Your task to perform on an android device: open the mobile data screen to see how much data has been used Image 0: 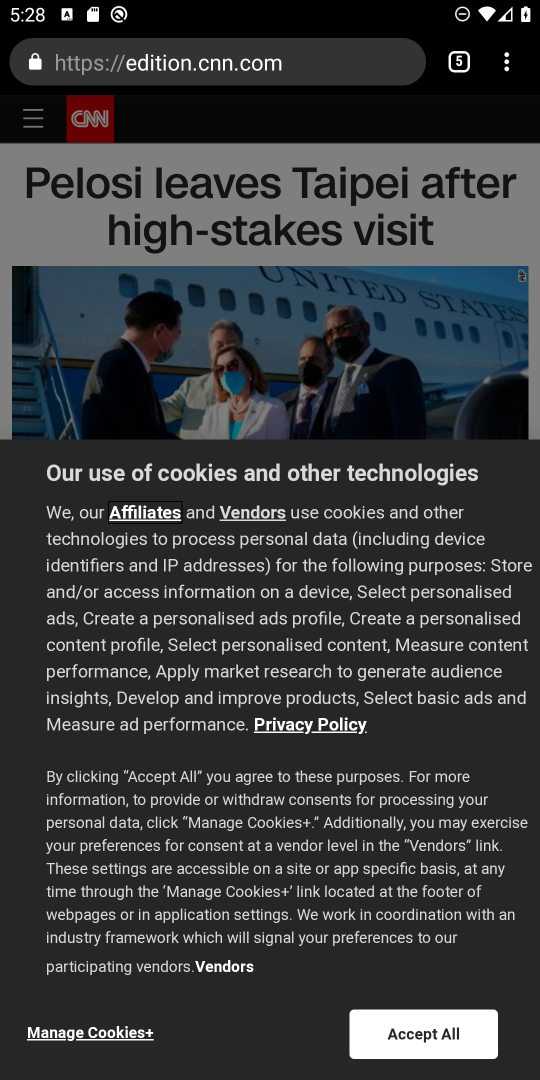
Step 0: press home button
Your task to perform on an android device: open the mobile data screen to see how much data has been used Image 1: 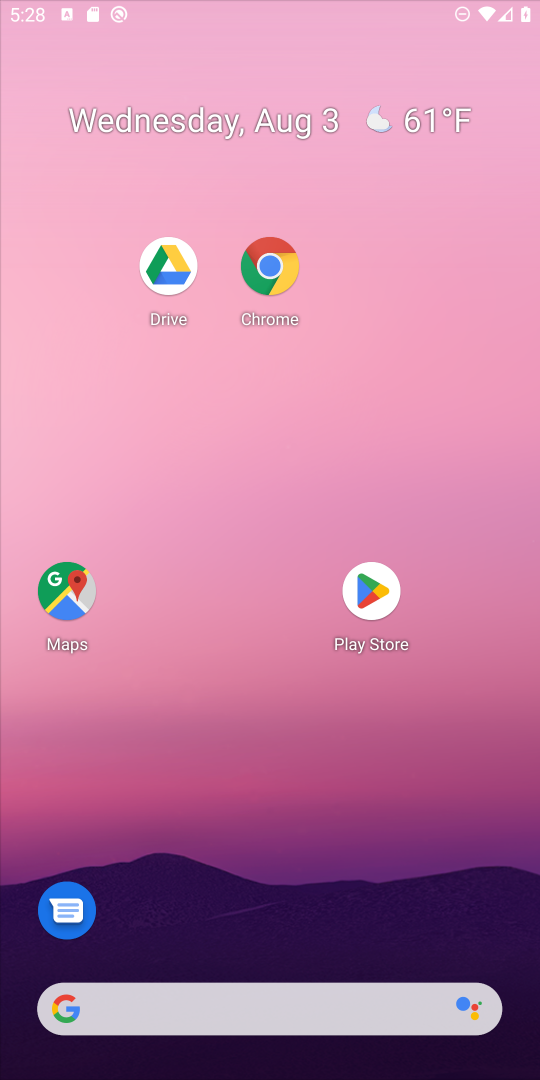
Step 1: drag from (226, 1003) to (506, 100)
Your task to perform on an android device: open the mobile data screen to see how much data has been used Image 2: 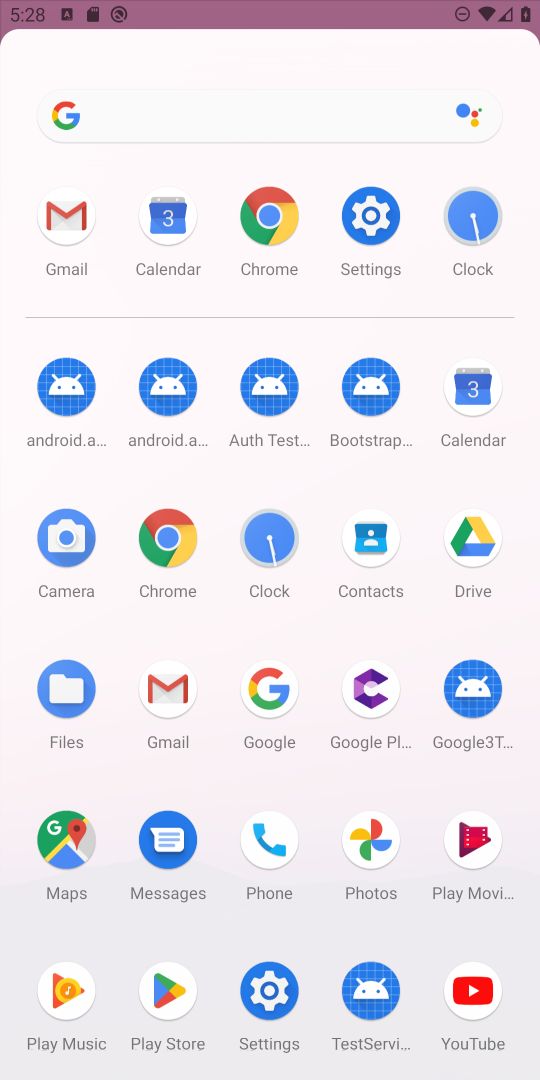
Step 2: click (372, 170)
Your task to perform on an android device: open the mobile data screen to see how much data has been used Image 3: 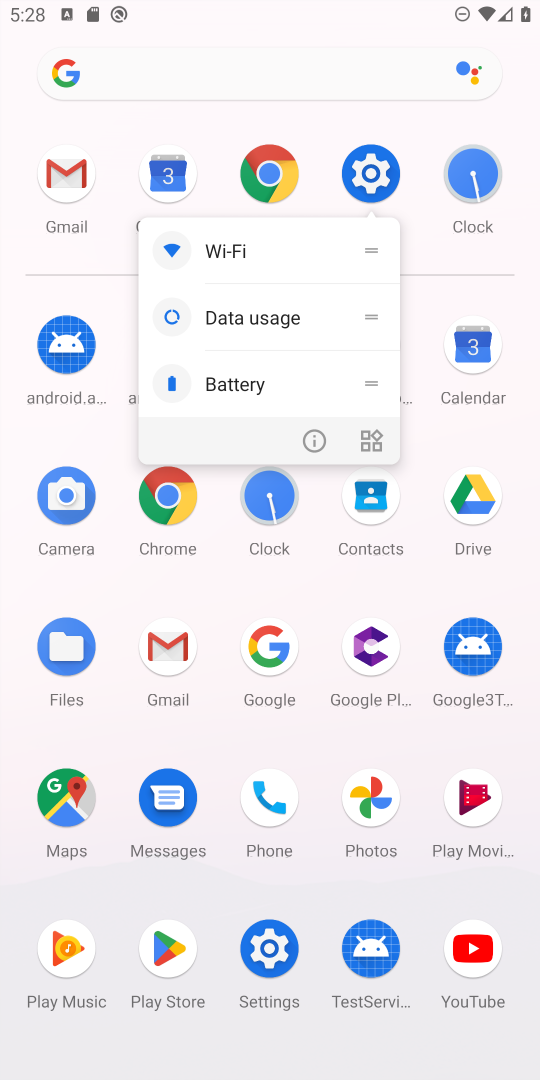
Step 3: click (370, 172)
Your task to perform on an android device: open the mobile data screen to see how much data has been used Image 4: 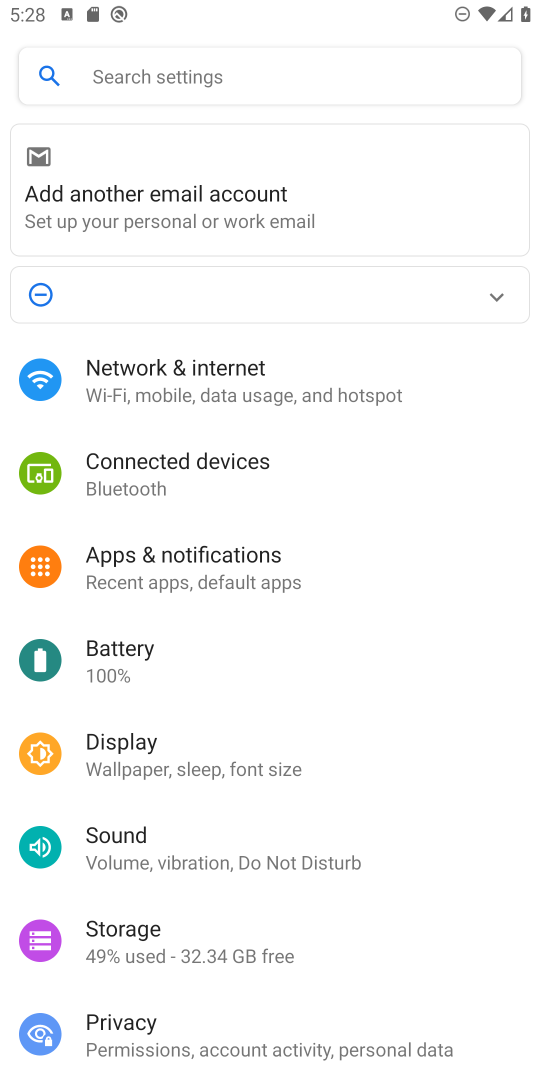
Step 4: click (177, 380)
Your task to perform on an android device: open the mobile data screen to see how much data has been used Image 5: 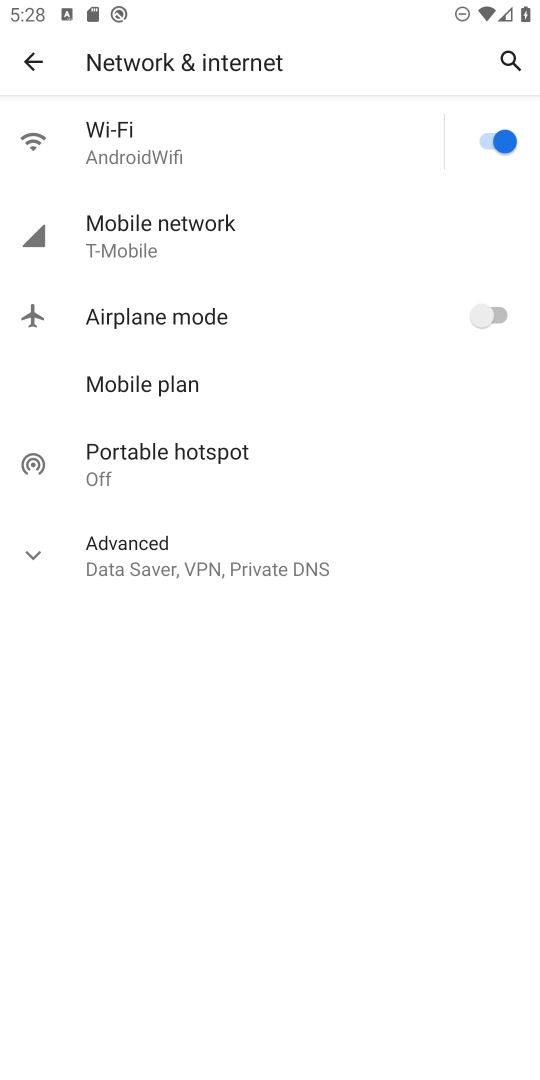
Step 5: click (170, 241)
Your task to perform on an android device: open the mobile data screen to see how much data has been used Image 6: 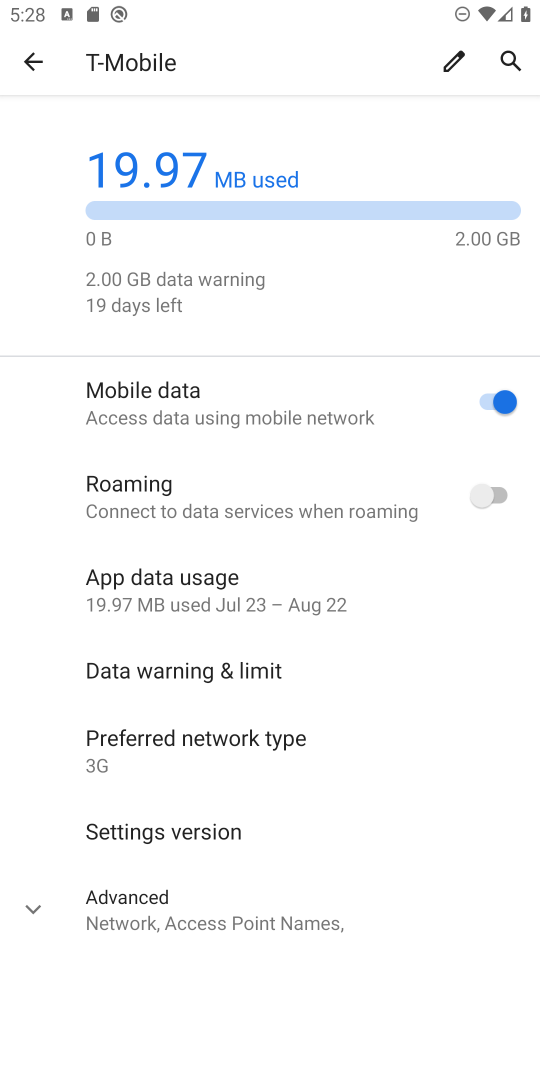
Step 6: task complete